Your task to perform on an android device: Open the calendar and show me this week's events Image 0: 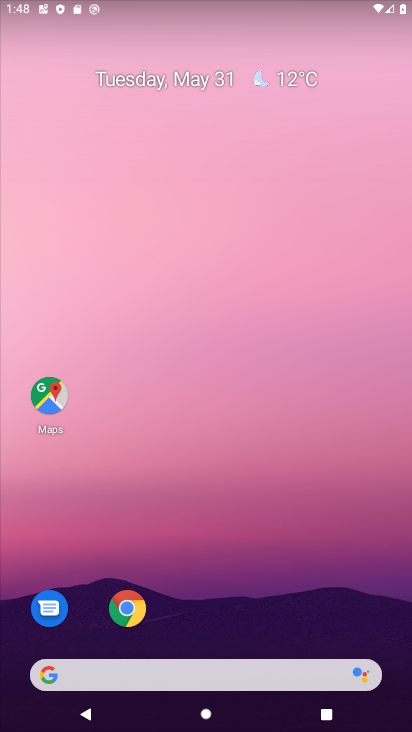
Step 0: press home button
Your task to perform on an android device: Open the calendar and show me this week's events Image 1: 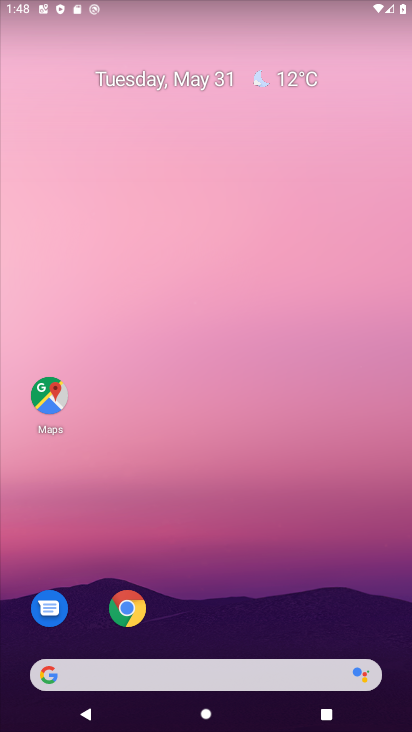
Step 1: drag from (307, 597) to (294, 155)
Your task to perform on an android device: Open the calendar and show me this week's events Image 2: 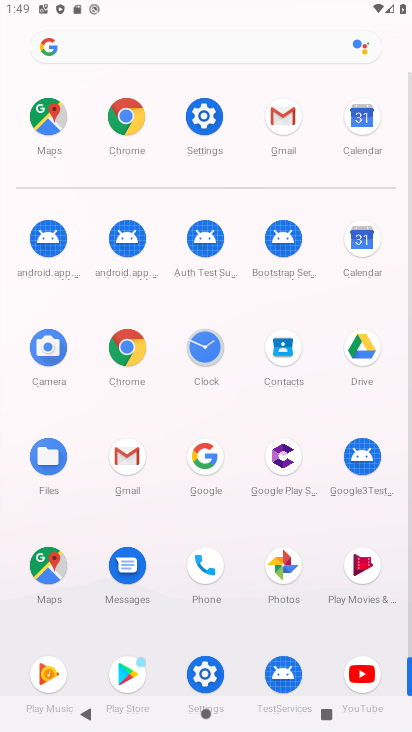
Step 2: click (358, 246)
Your task to perform on an android device: Open the calendar and show me this week's events Image 3: 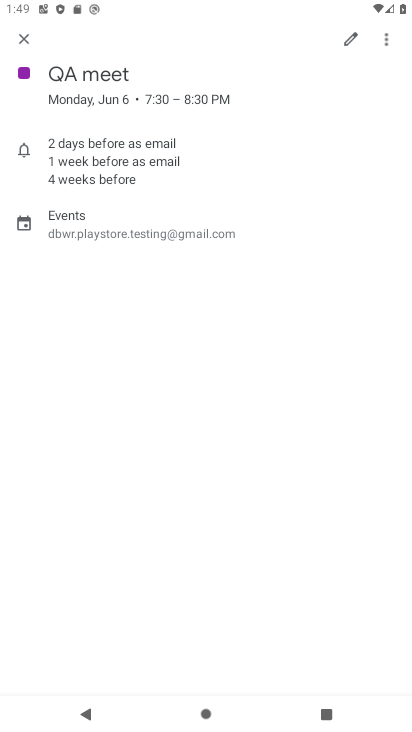
Step 3: click (21, 40)
Your task to perform on an android device: Open the calendar and show me this week's events Image 4: 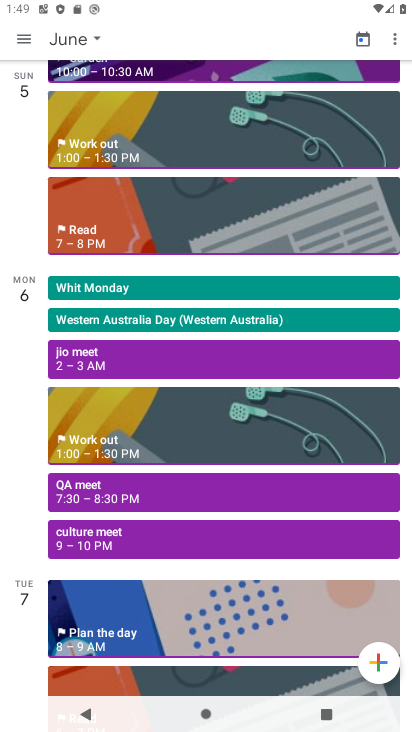
Step 4: task complete